Your task to perform on an android device: When is my next appointment? Image 0: 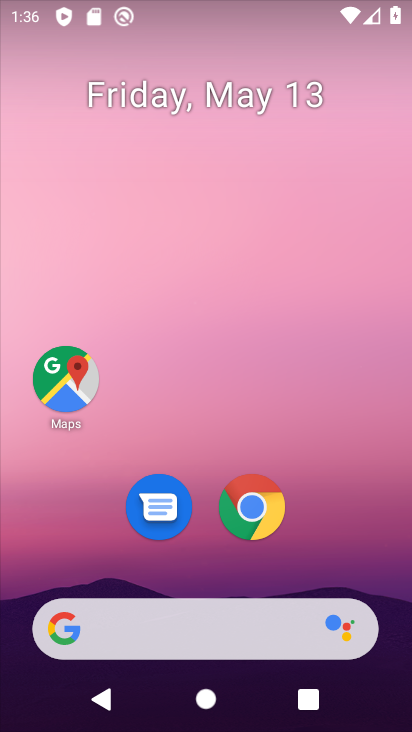
Step 0: drag from (361, 599) to (172, 1)
Your task to perform on an android device: When is my next appointment? Image 1: 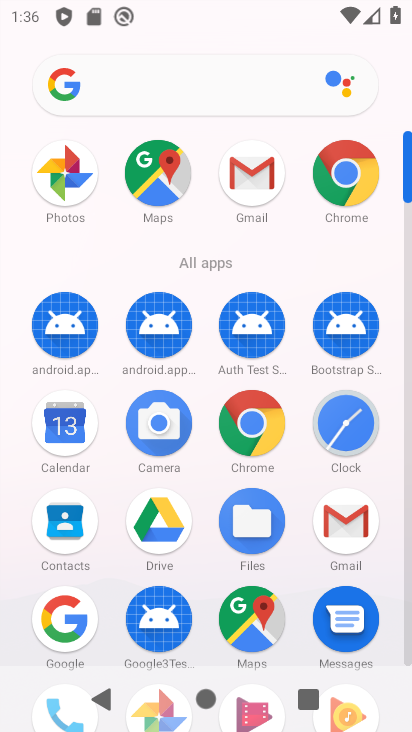
Step 1: click (64, 419)
Your task to perform on an android device: When is my next appointment? Image 2: 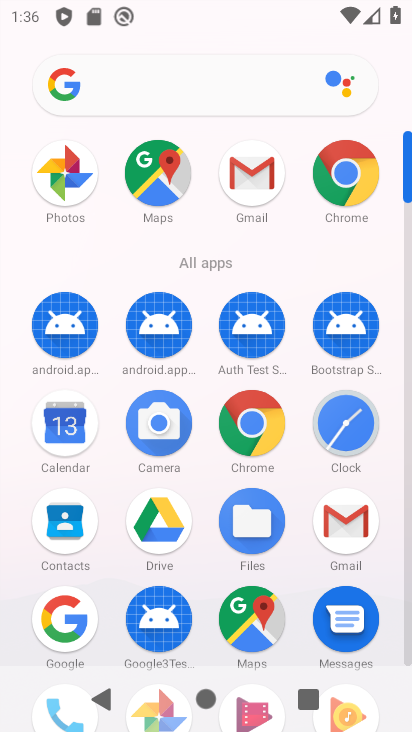
Step 2: click (63, 421)
Your task to perform on an android device: When is my next appointment? Image 3: 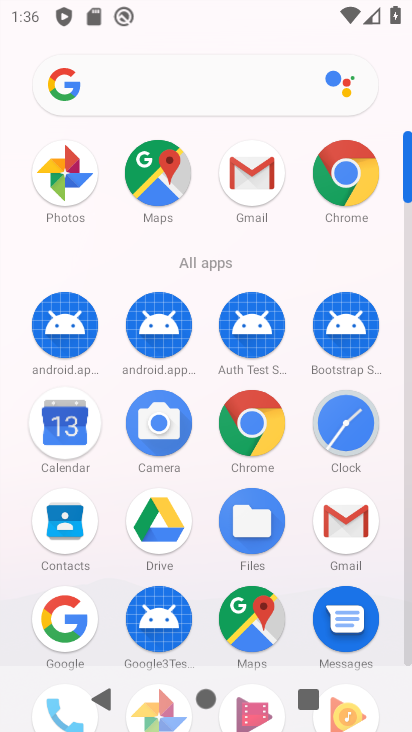
Step 3: click (62, 421)
Your task to perform on an android device: When is my next appointment? Image 4: 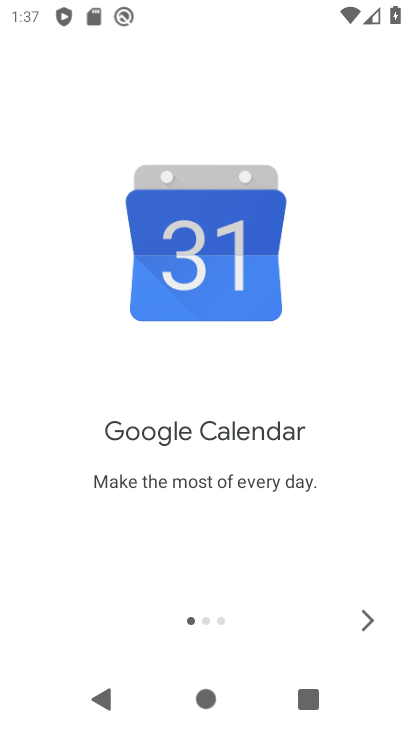
Step 4: click (362, 616)
Your task to perform on an android device: When is my next appointment? Image 5: 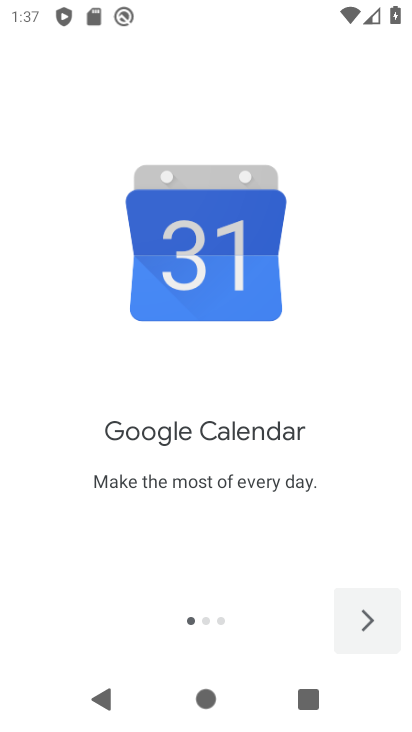
Step 5: click (367, 612)
Your task to perform on an android device: When is my next appointment? Image 6: 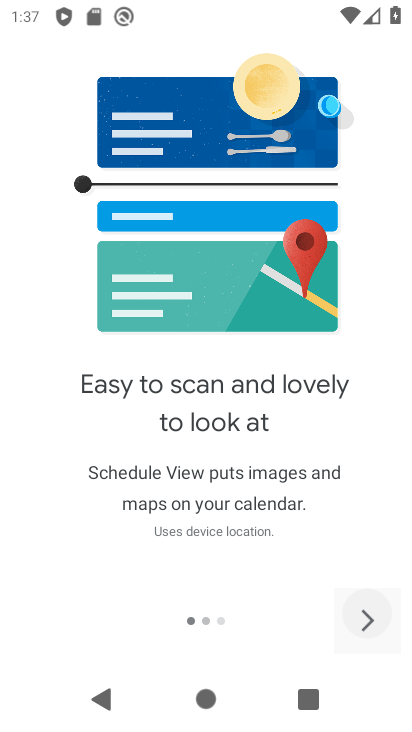
Step 6: click (368, 607)
Your task to perform on an android device: When is my next appointment? Image 7: 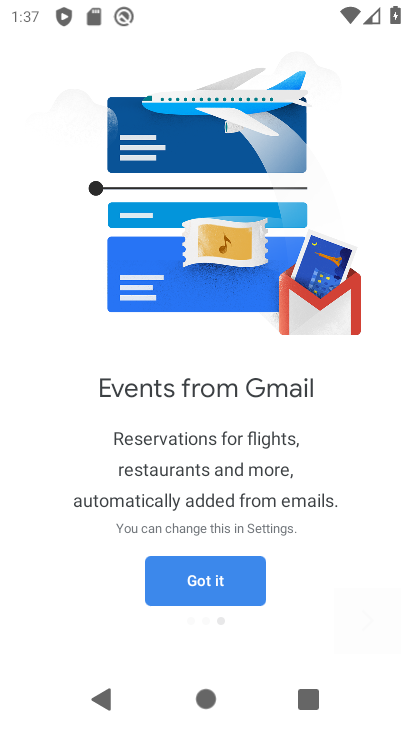
Step 7: click (368, 607)
Your task to perform on an android device: When is my next appointment? Image 8: 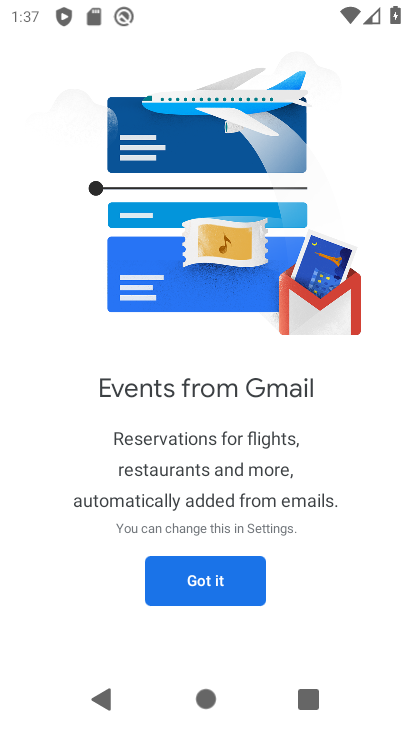
Step 8: click (222, 568)
Your task to perform on an android device: When is my next appointment? Image 9: 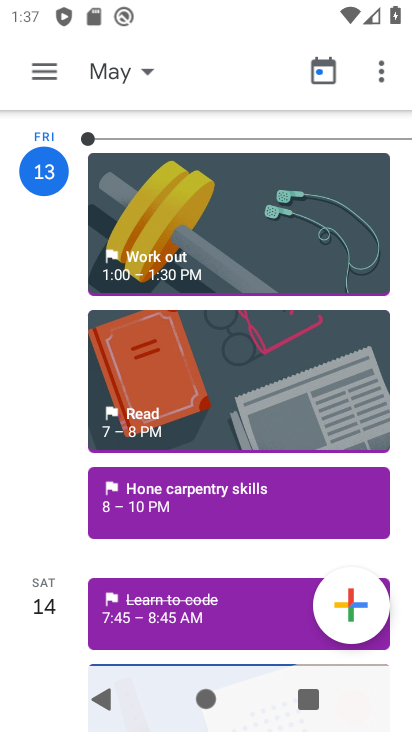
Step 9: drag from (176, 521) to (205, 149)
Your task to perform on an android device: When is my next appointment? Image 10: 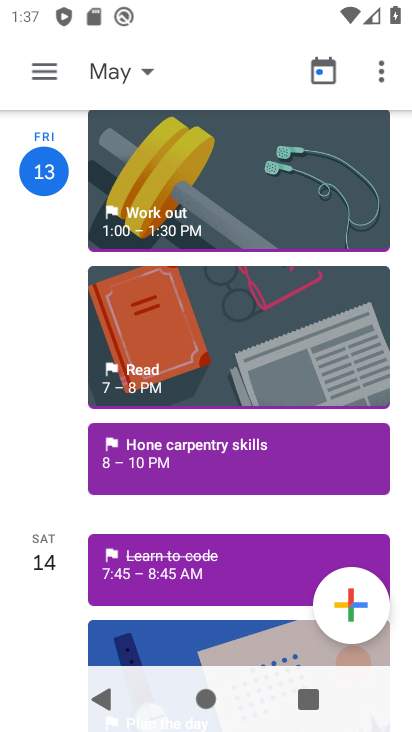
Step 10: drag from (262, 378) to (256, 92)
Your task to perform on an android device: When is my next appointment? Image 11: 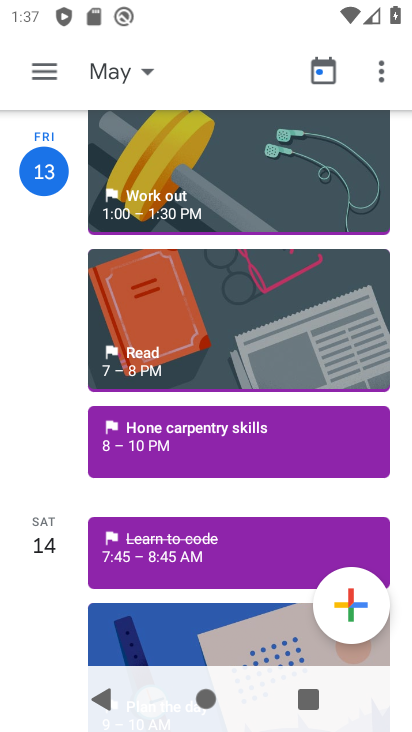
Step 11: drag from (217, 374) to (222, 274)
Your task to perform on an android device: When is my next appointment? Image 12: 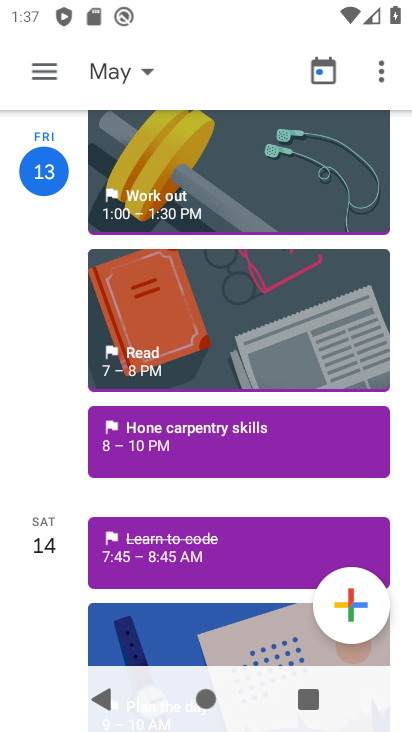
Step 12: drag from (196, 408) to (175, 220)
Your task to perform on an android device: When is my next appointment? Image 13: 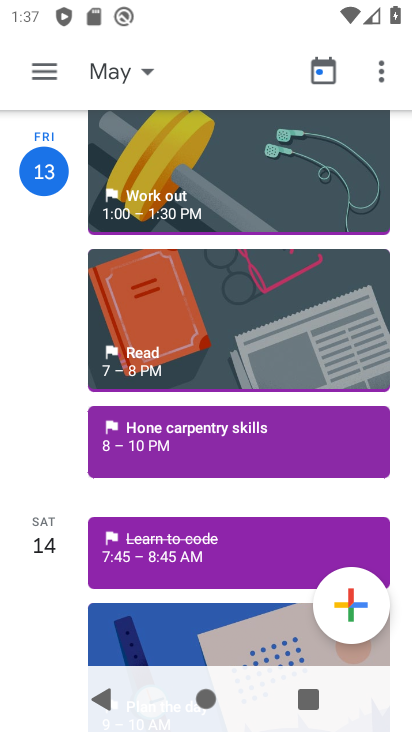
Step 13: drag from (158, 358) to (155, 316)
Your task to perform on an android device: When is my next appointment? Image 14: 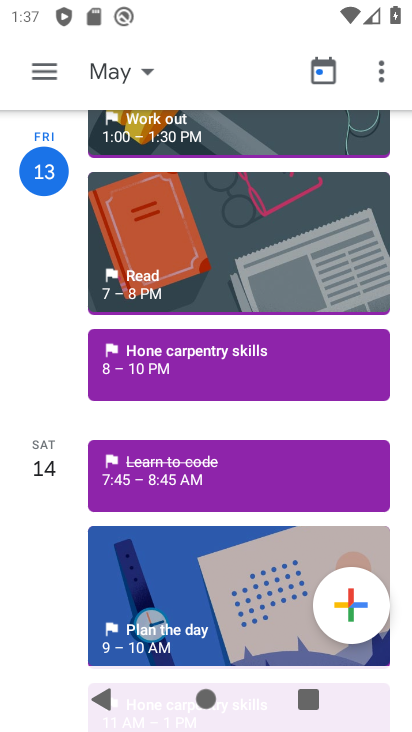
Step 14: click (143, 486)
Your task to perform on an android device: When is my next appointment? Image 15: 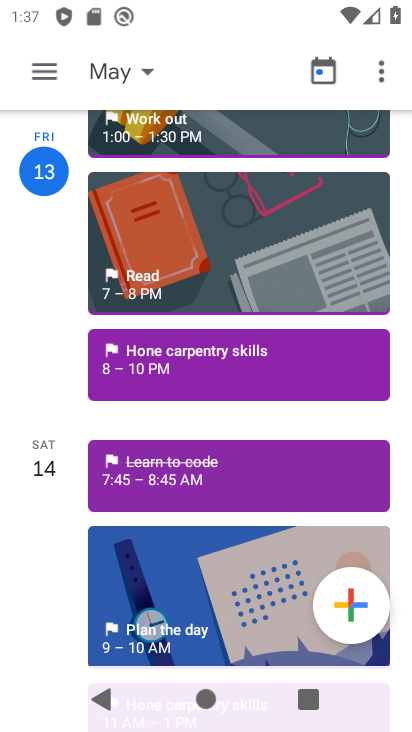
Step 15: click (143, 486)
Your task to perform on an android device: When is my next appointment? Image 16: 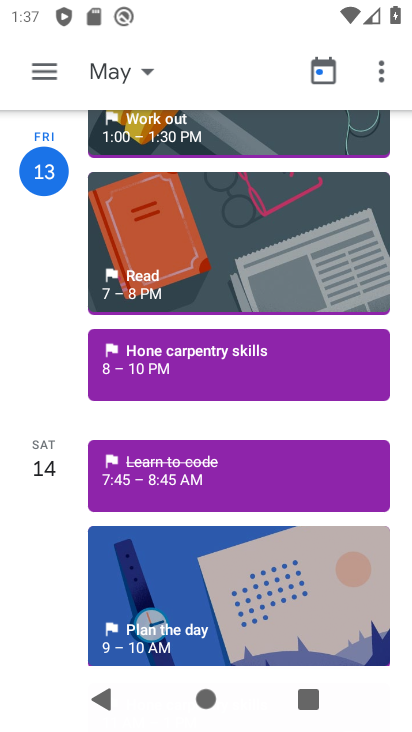
Step 16: click (142, 494)
Your task to perform on an android device: When is my next appointment? Image 17: 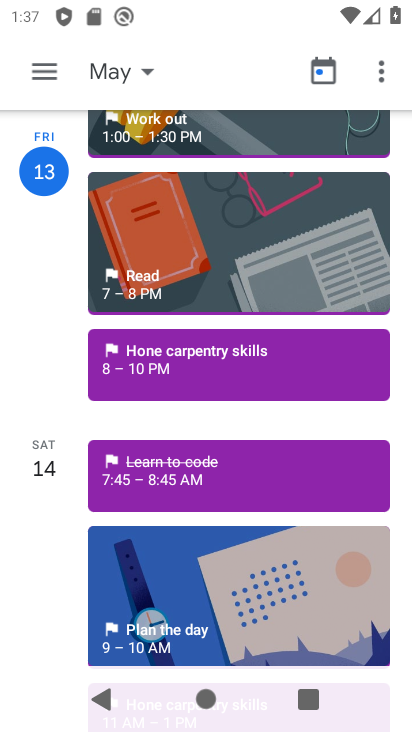
Step 17: click (143, 486)
Your task to perform on an android device: When is my next appointment? Image 18: 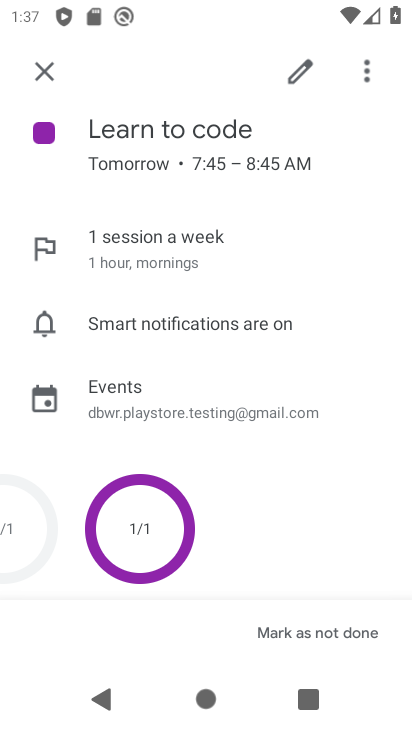
Step 18: task complete